Your task to perform on an android device: allow cookies in the chrome app Image 0: 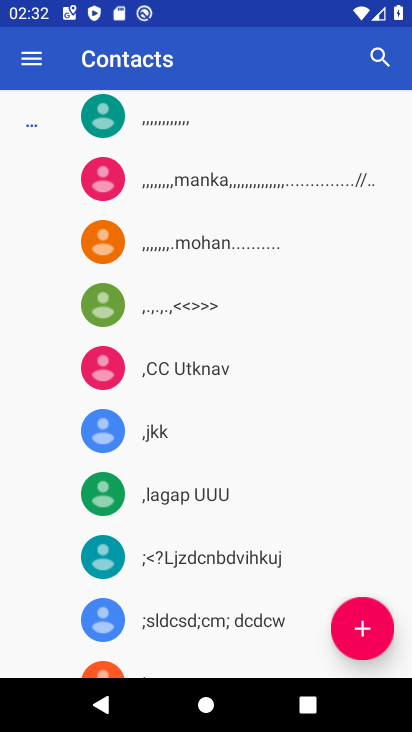
Step 0: drag from (201, 590) to (310, 220)
Your task to perform on an android device: allow cookies in the chrome app Image 1: 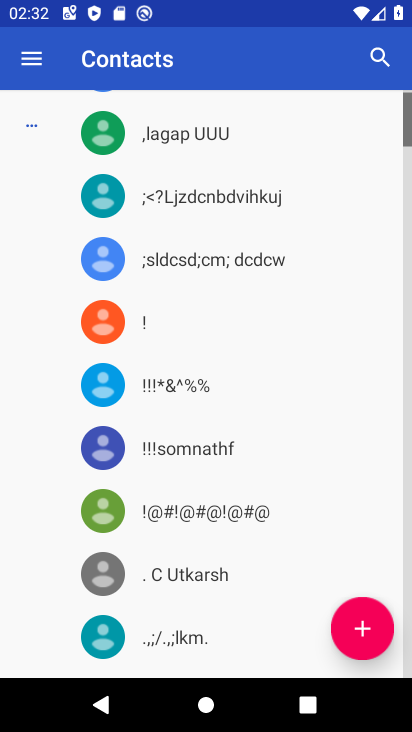
Step 1: press home button
Your task to perform on an android device: allow cookies in the chrome app Image 2: 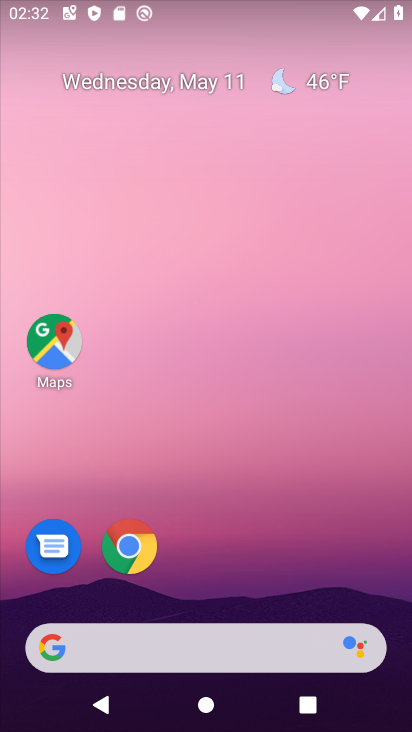
Step 2: drag from (206, 579) to (249, 175)
Your task to perform on an android device: allow cookies in the chrome app Image 3: 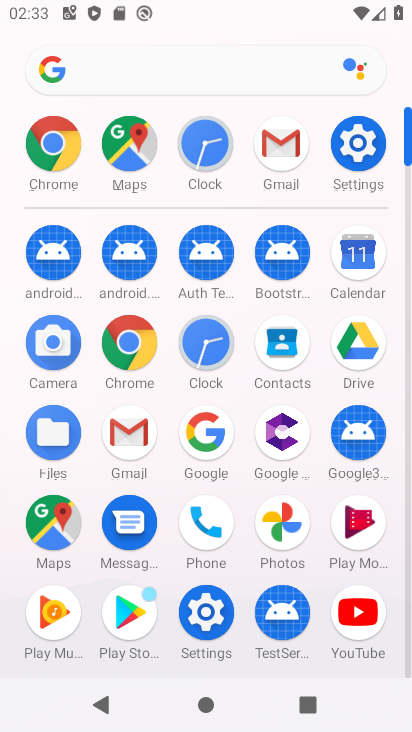
Step 3: click (124, 326)
Your task to perform on an android device: allow cookies in the chrome app Image 4: 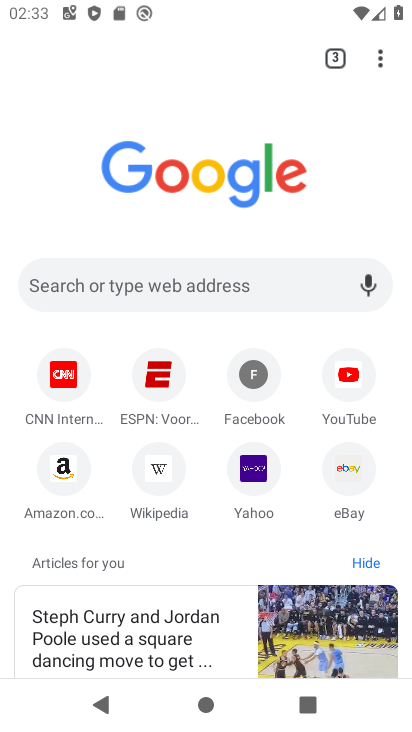
Step 4: drag from (380, 58) to (217, 492)
Your task to perform on an android device: allow cookies in the chrome app Image 5: 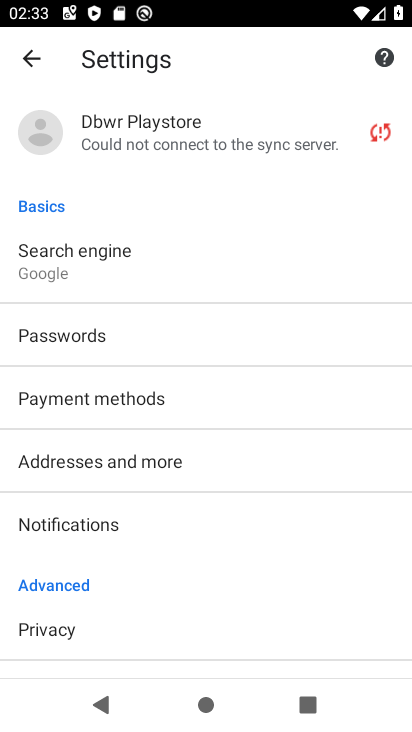
Step 5: drag from (144, 590) to (225, 24)
Your task to perform on an android device: allow cookies in the chrome app Image 6: 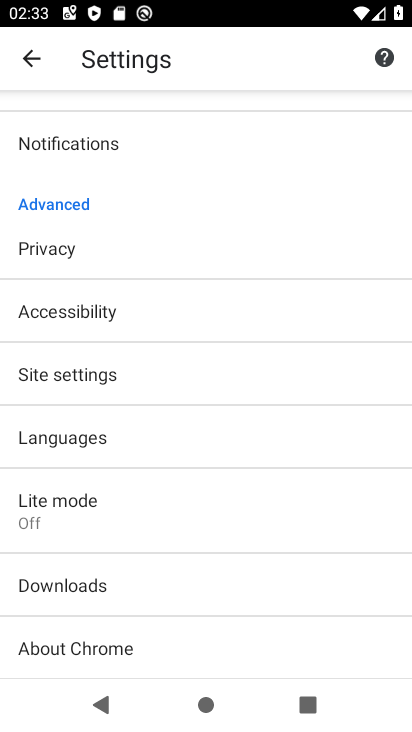
Step 6: drag from (181, 616) to (218, 324)
Your task to perform on an android device: allow cookies in the chrome app Image 7: 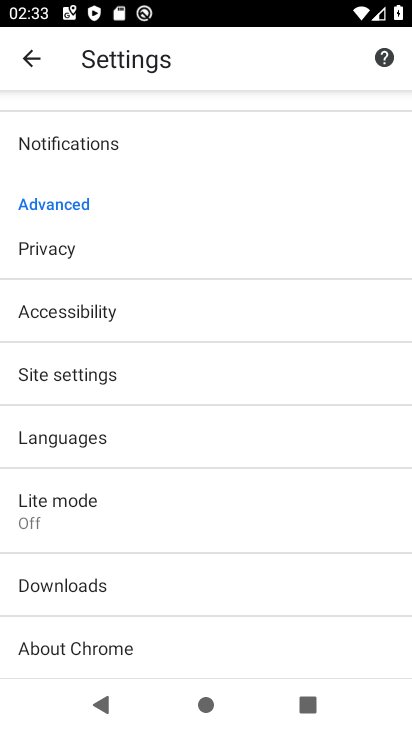
Step 7: click (130, 376)
Your task to perform on an android device: allow cookies in the chrome app Image 8: 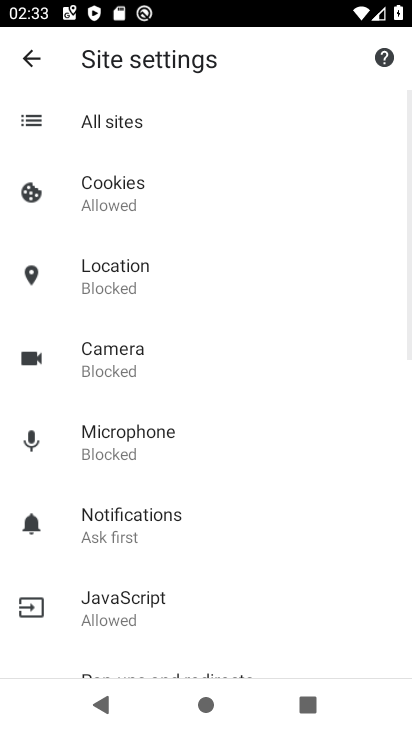
Step 8: click (156, 204)
Your task to perform on an android device: allow cookies in the chrome app Image 9: 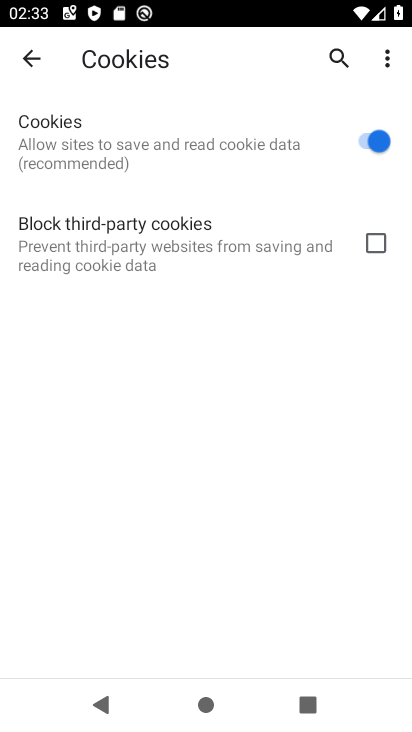
Step 9: task complete